Your task to perform on an android device: install app "Spotify" Image 0: 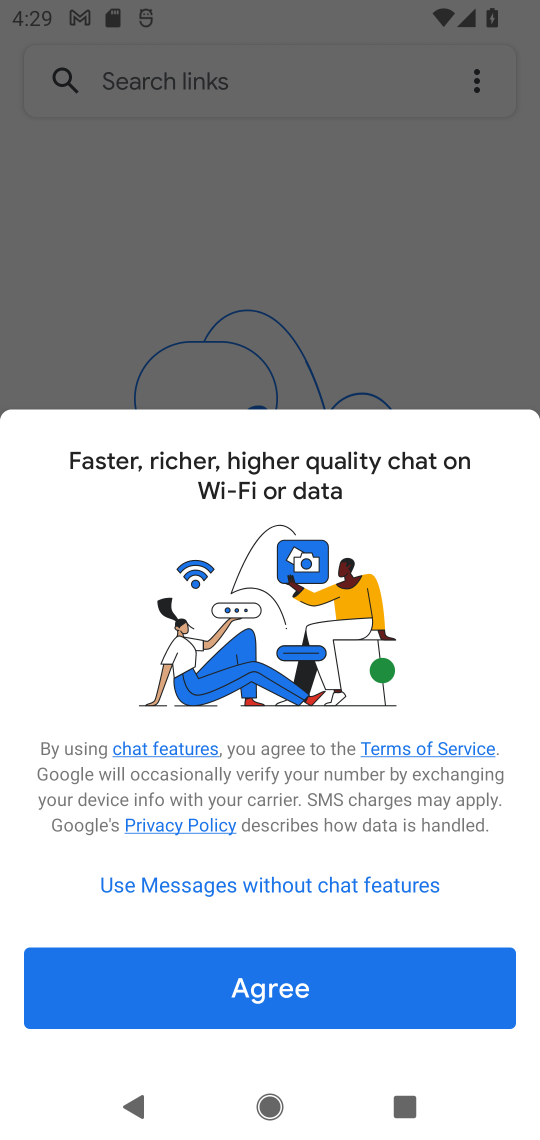
Step 0: press home button
Your task to perform on an android device: install app "Spotify" Image 1: 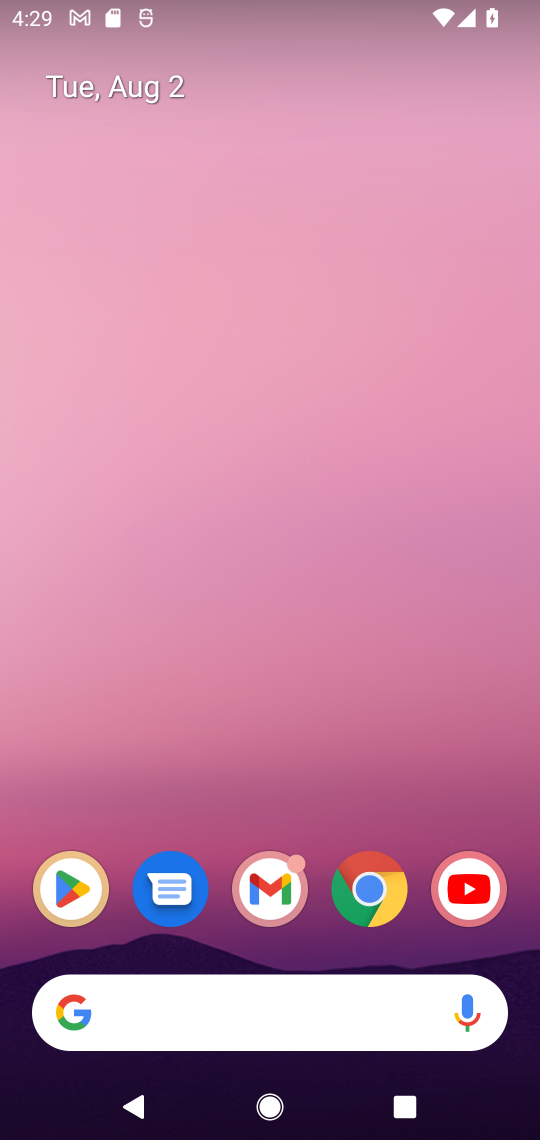
Step 1: drag from (420, 792) to (410, 88)
Your task to perform on an android device: install app "Spotify" Image 2: 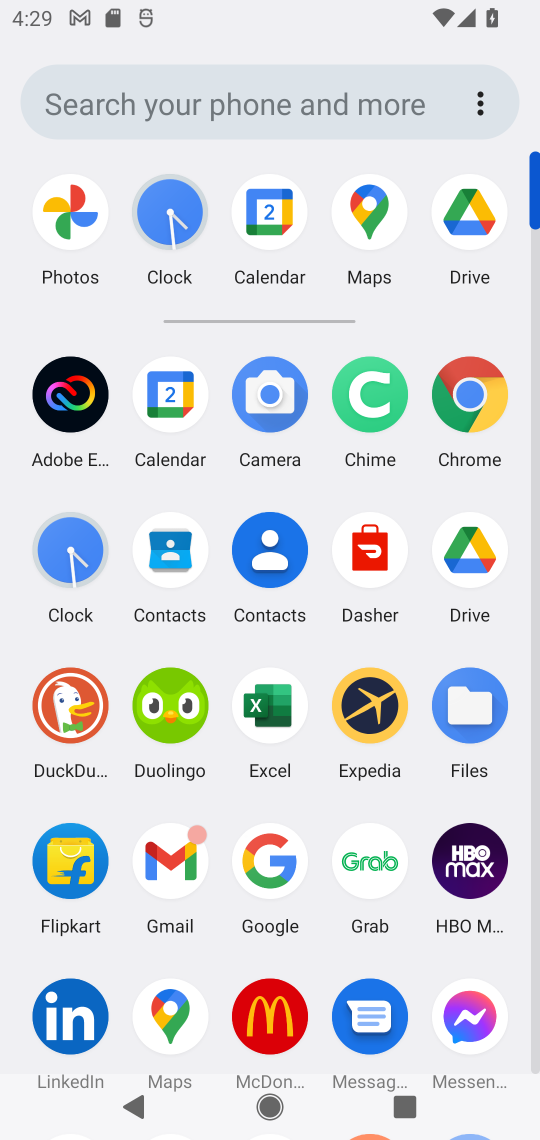
Step 2: drag from (510, 781) to (533, 356)
Your task to perform on an android device: install app "Spotify" Image 3: 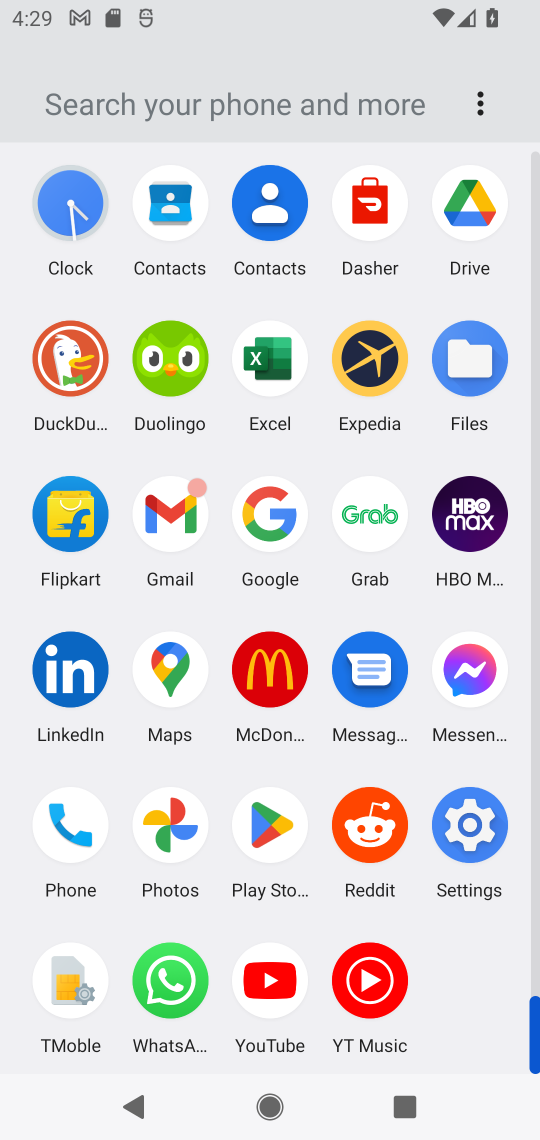
Step 3: click (275, 829)
Your task to perform on an android device: install app "Spotify" Image 4: 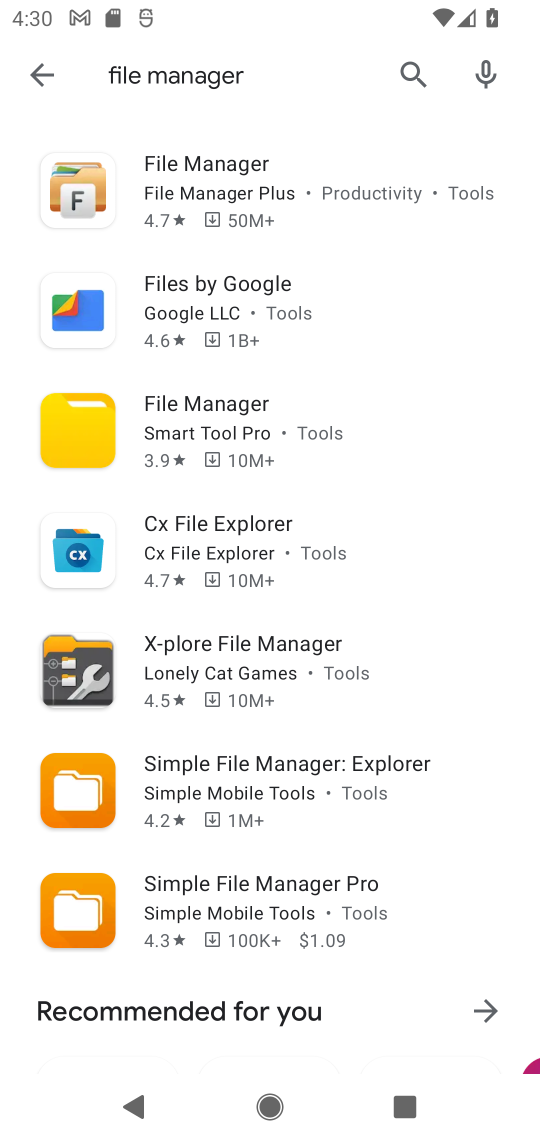
Step 4: click (414, 87)
Your task to perform on an android device: install app "Spotify" Image 5: 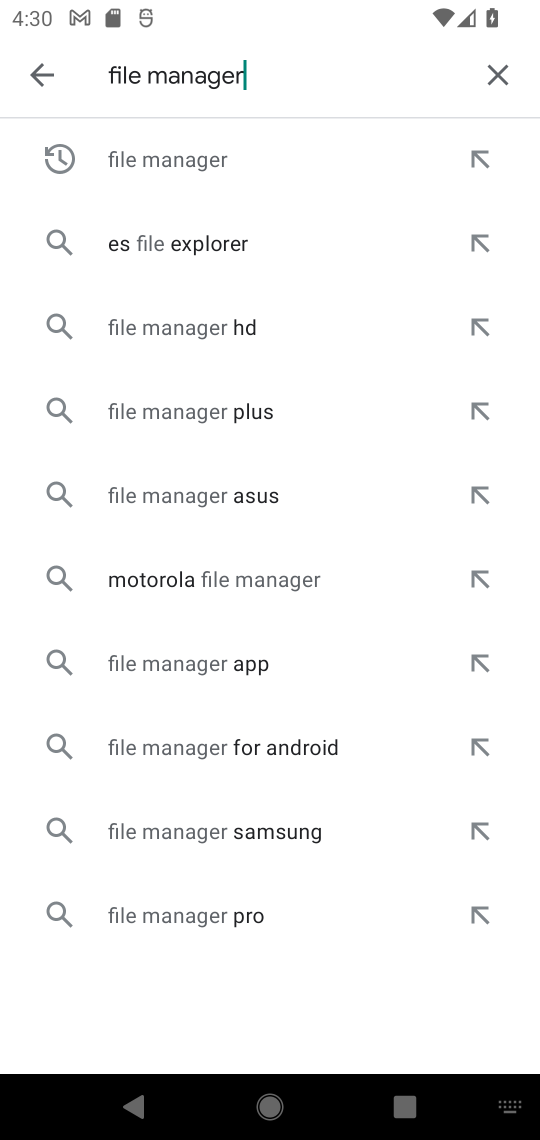
Step 5: click (503, 71)
Your task to perform on an android device: install app "Spotify" Image 6: 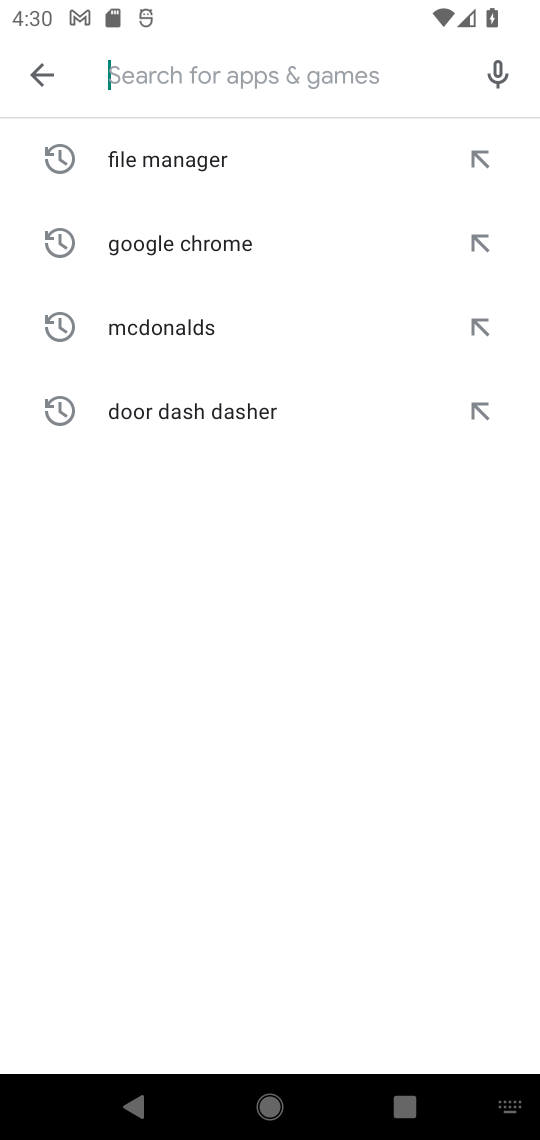
Step 6: click (377, 99)
Your task to perform on an android device: install app "Spotify" Image 7: 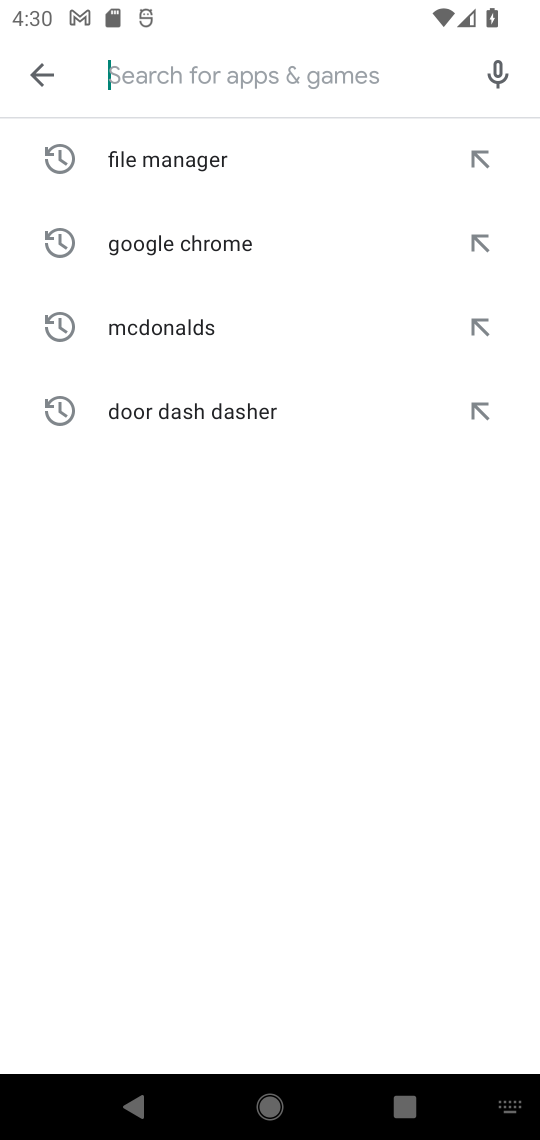
Step 7: type "spotifty"
Your task to perform on an android device: install app "Spotify" Image 8: 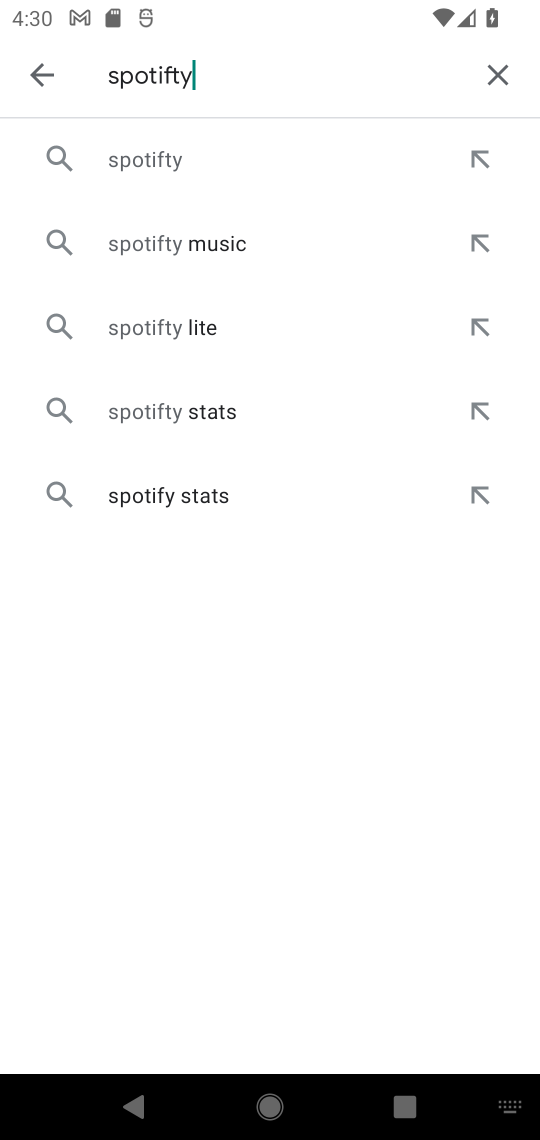
Step 8: click (216, 155)
Your task to perform on an android device: install app "Spotify" Image 9: 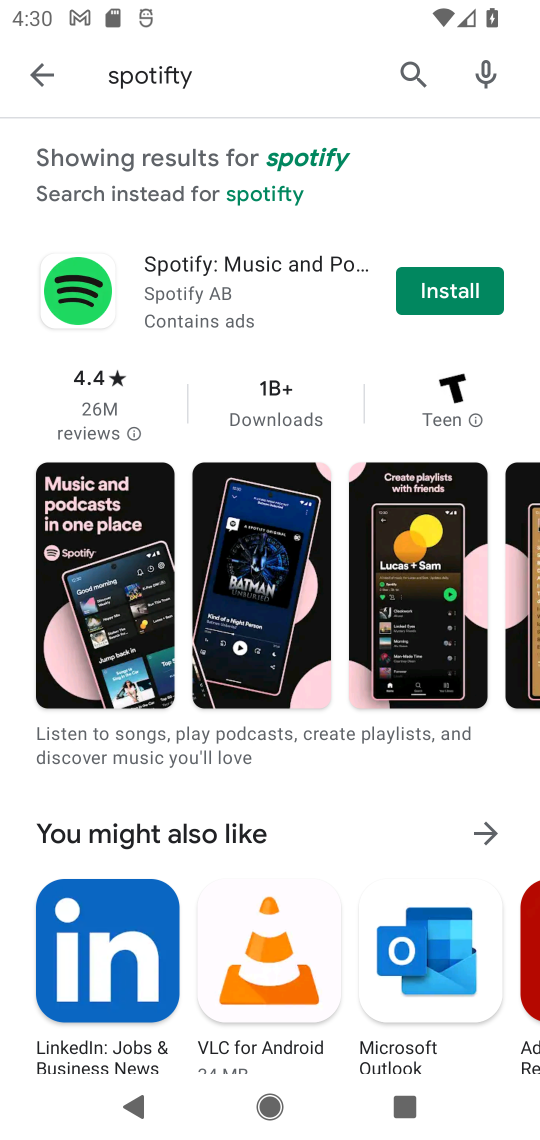
Step 9: click (455, 289)
Your task to perform on an android device: install app "Spotify" Image 10: 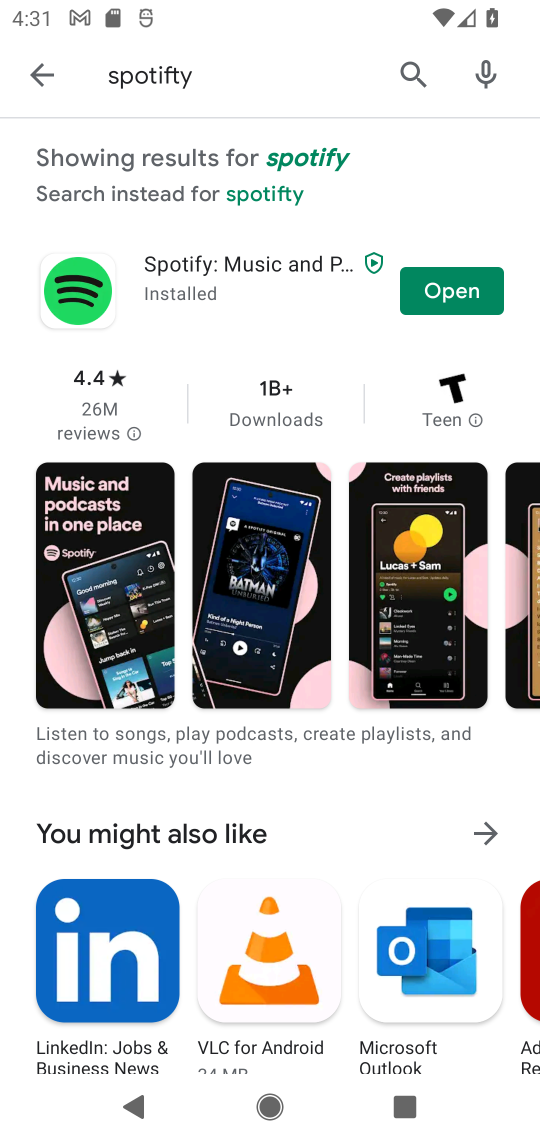
Step 10: task complete